Your task to perform on an android device: check the backup settings in the google photos Image 0: 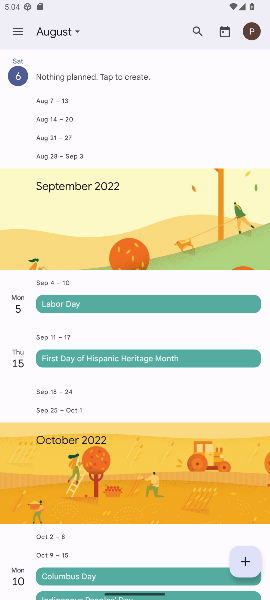
Step 0: press home button
Your task to perform on an android device: check the backup settings in the google photos Image 1: 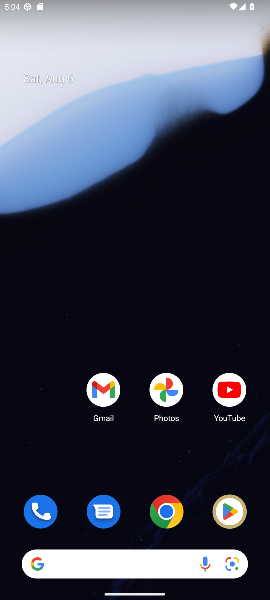
Step 1: click (169, 399)
Your task to perform on an android device: check the backup settings in the google photos Image 2: 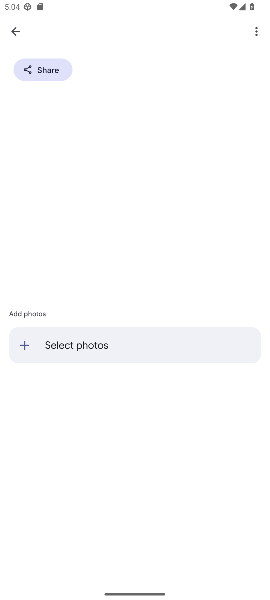
Step 2: click (14, 28)
Your task to perform on an android device: check the backup settings in the google photos Image 3: 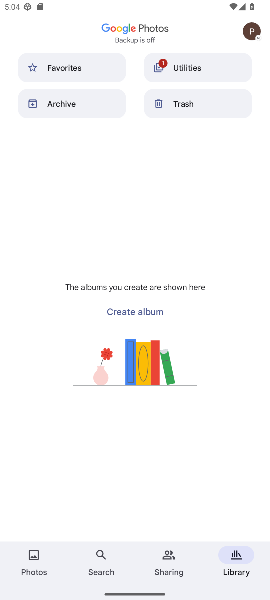
Step 3: click (11, 32)
Your task to perform on an android device: check the backup settings in the google photos Image 4: 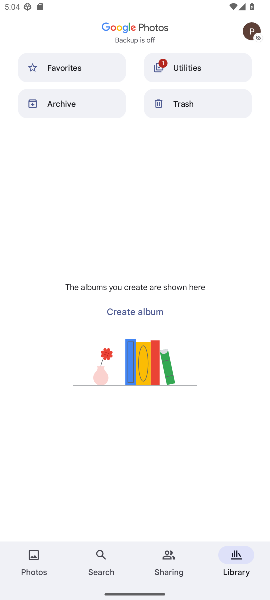
Step 4: click (252, 26)
Your task to perform on an android device: check the backup settings in the google photos Image 5: 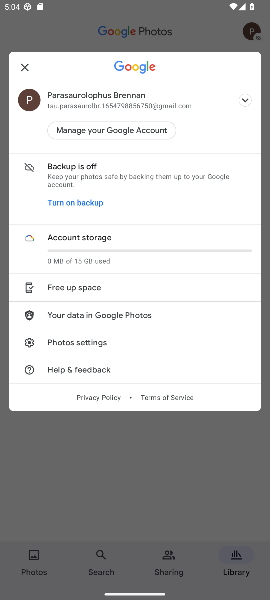
Step 5: click (81, 348)
Your task to perform on an android device: check the backup settings in the google photos Image 6: 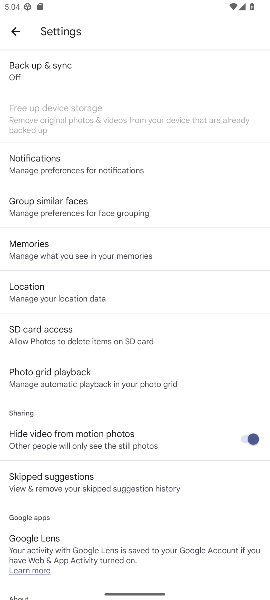
Step 6: click (67, 70)
Your task to perform on an android device: check the backup settings in the google photos Image 7: 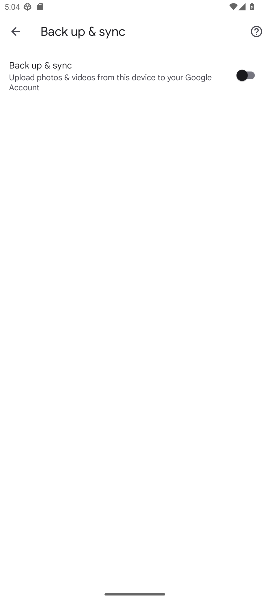
Step 7: task complete